Your task to perform on an android device: Open Amazon Image 0: 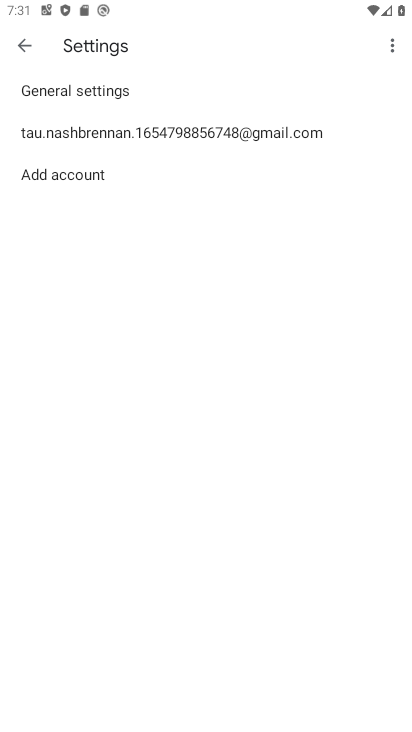
Step 0: press home button
Your task to perform on an android device: Open Amazon Image 1: 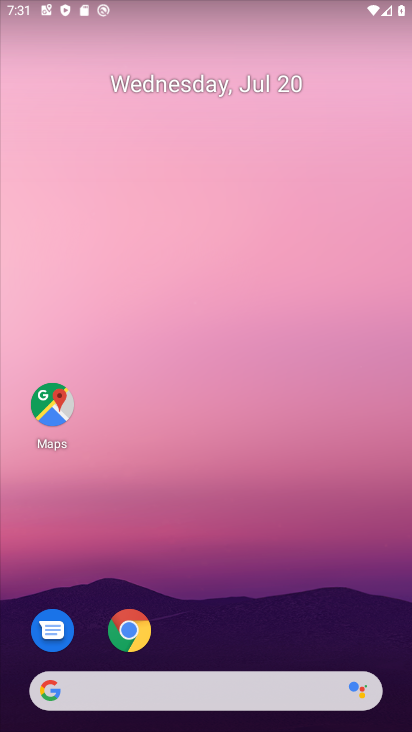
Step 1: click (130, 630)
Your task to perform on an android device: Open Amazon Image 2: 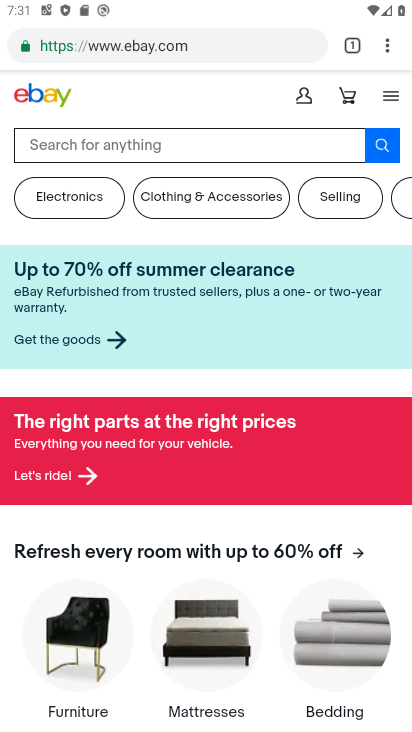
Step 2: click (256, 43)
Your task to perform on an android device: Open Amazon Image 3: 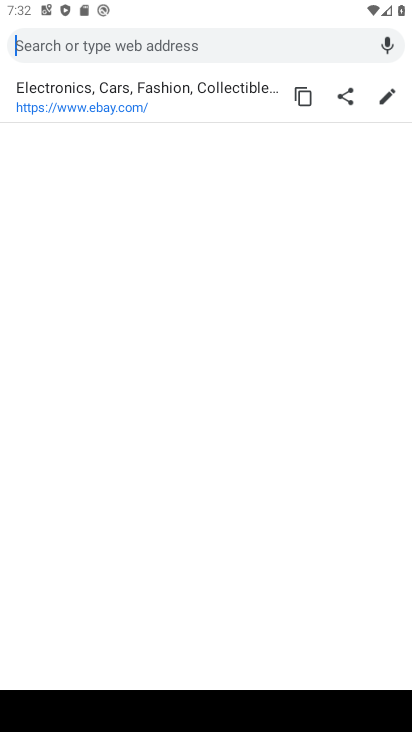
Step 3: type "Amazon"
Your task to perform on an android device: Open Amazon Image 4: 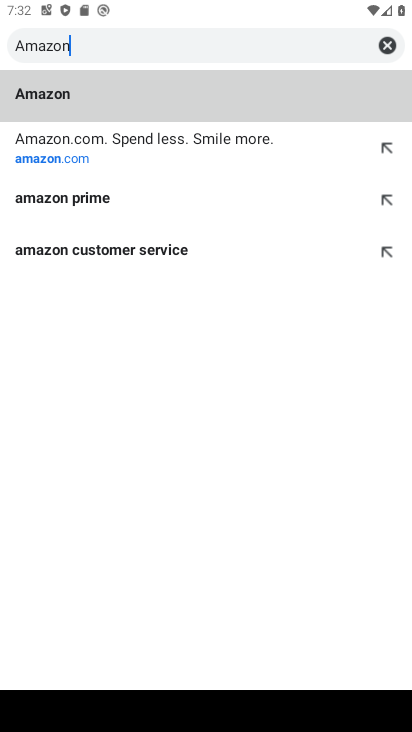
Step 4: click (71, 101)
Your task to perform on an android device: Open Amazon Image 5: 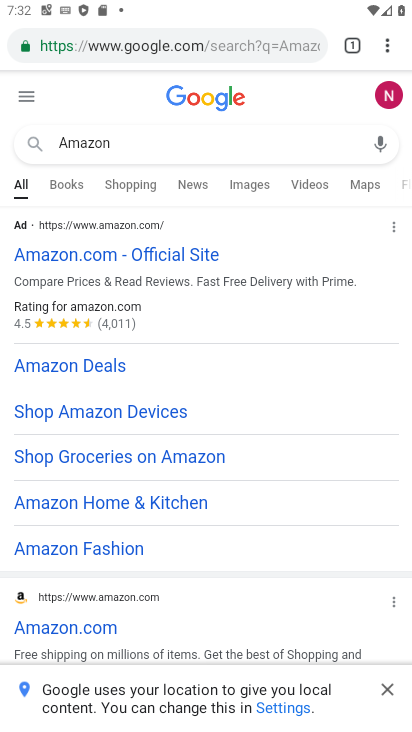
Step 5: click (91, 619)
Your task to perform on an android device: Open Amazon Image 6: 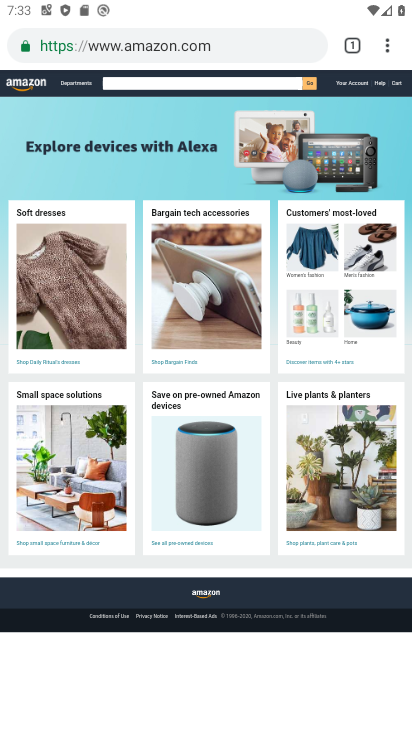
Step 6: task complete